Your task to perform on an android device: set default search engine in the chrome app Image 0: 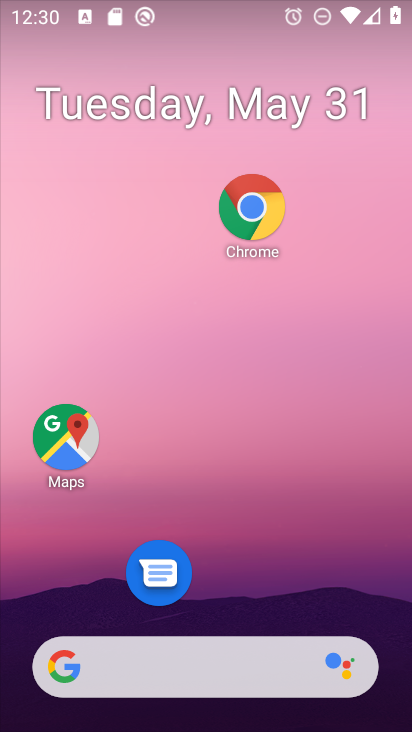
Step 0: drag from (288, 665) to (286, 90)
Your task to perform on an android device: set default search engine in the chrome app Image 1: 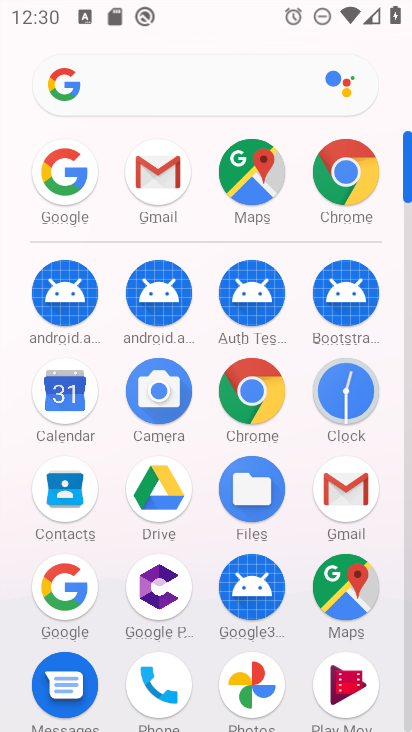
Step 1: click (349, 185)
Your task to perform on an android device: set default search engine in the chrome app Image 2: 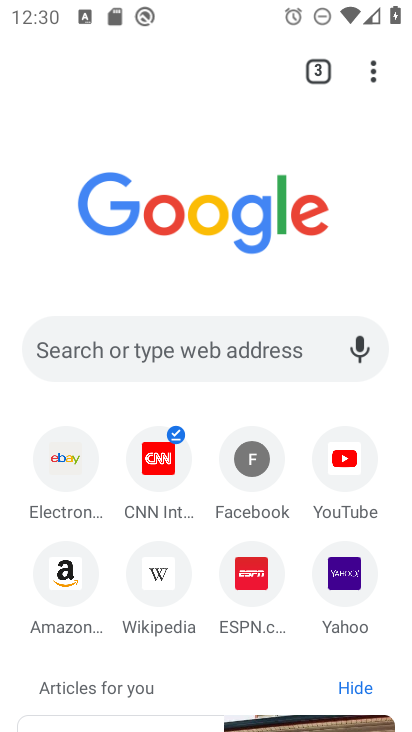
Step 2: click (377, 64)
Your task to perform on an android device: set default search engine in the chrome app Image 3: 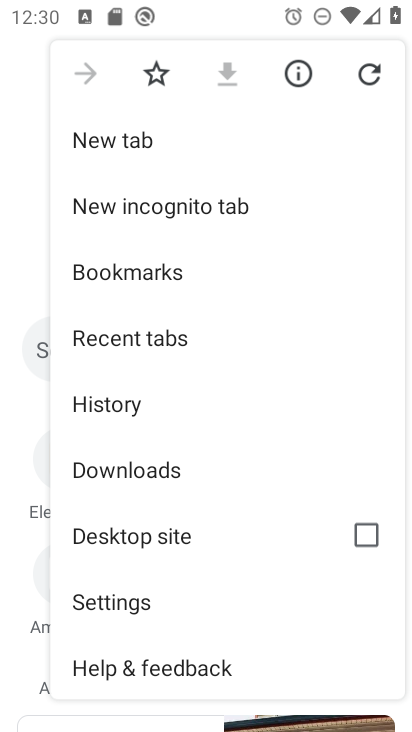
Step 3: click (120, 600)
Your task to perform on an android device: set default search engine in the chrome app Image 4: 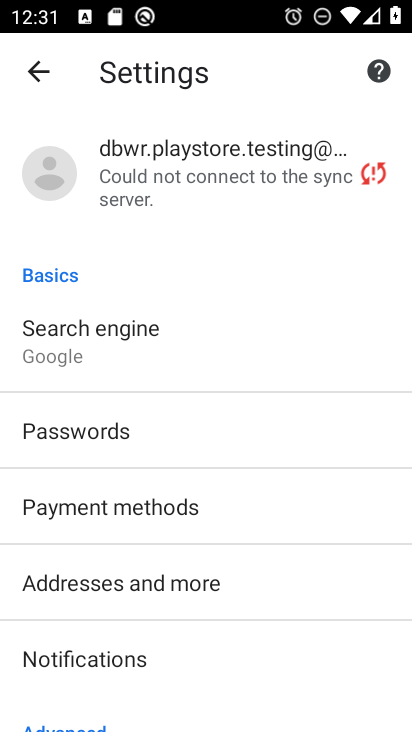
Step 4: click (118, 361)
Your task to perform on an android device: set default search engine in the chrome app Image 5: 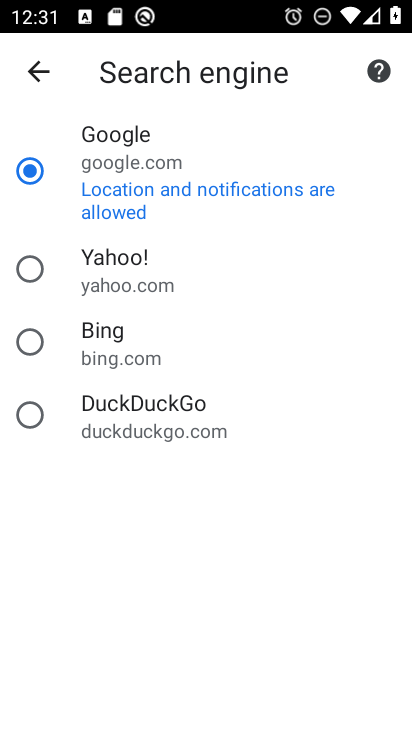
Step 5: task complete